Your task to perform on an android device: read, delete, or share a saved page in the chrome app Image 0: 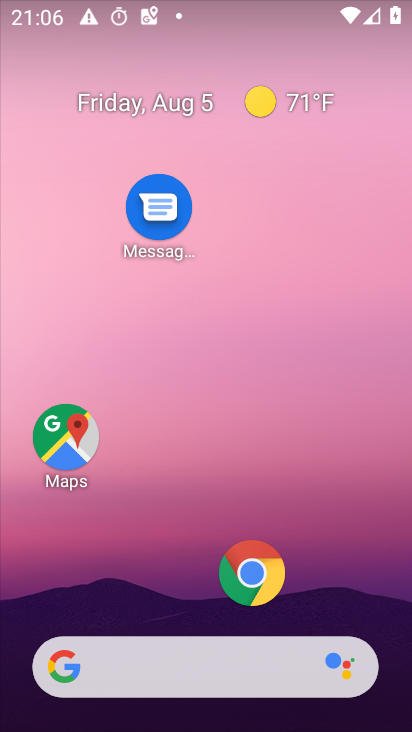
Step 0: click (249, 564)
Your task to perform on an android device: read, delete, or share a saved page in the chrome app Image 1: 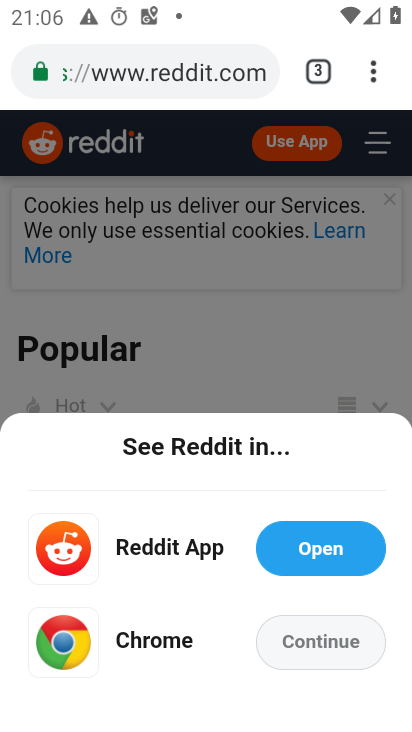
Step 1: click (375, 68)
Your task to perform on an android device: read, delete, or share a saved page in the chrome app Image 2: 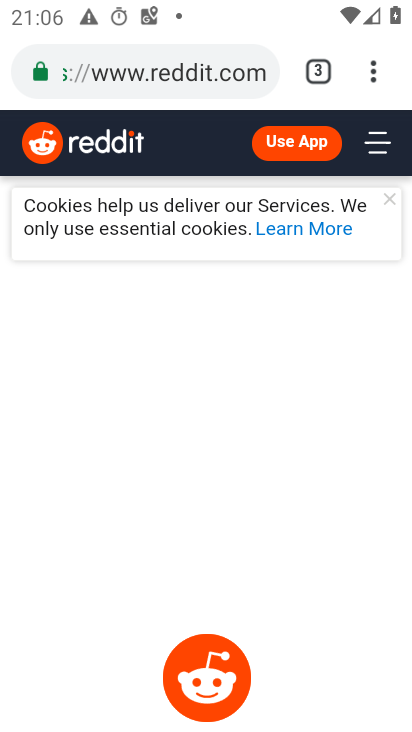
Step 2: click (373, 70)
Your task to perform on an android device: read, delete, or share a saved page in the chrome app Image 3: 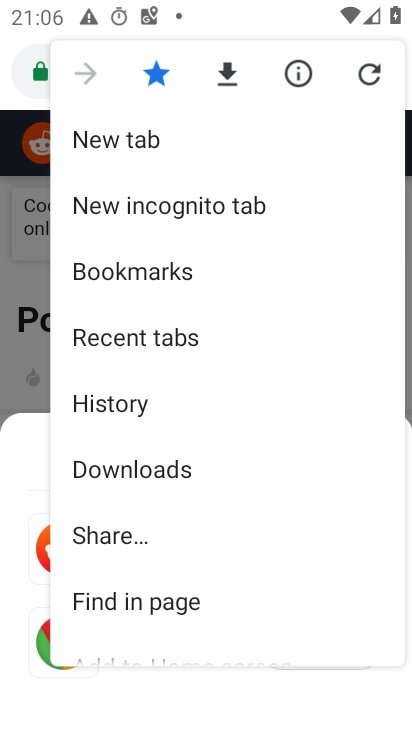
Step 3: click (183, 471)
Your task to perform on an android device: read, delete, or share a saved page in the chrome app Image 4: 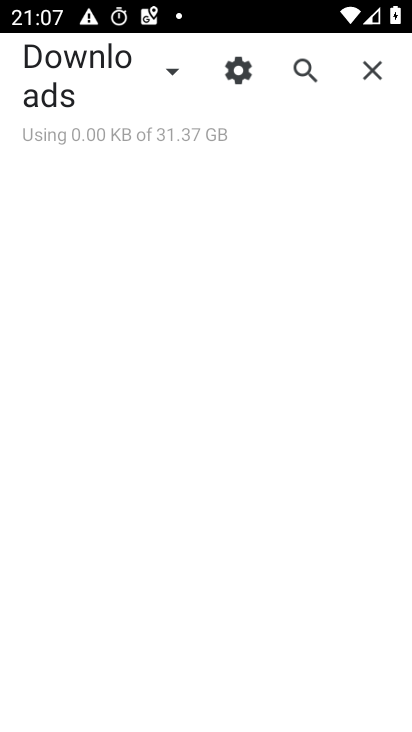
Step 4: task complete